Your task to perform on an android device: visit the assistant section in the google photos Image 0: 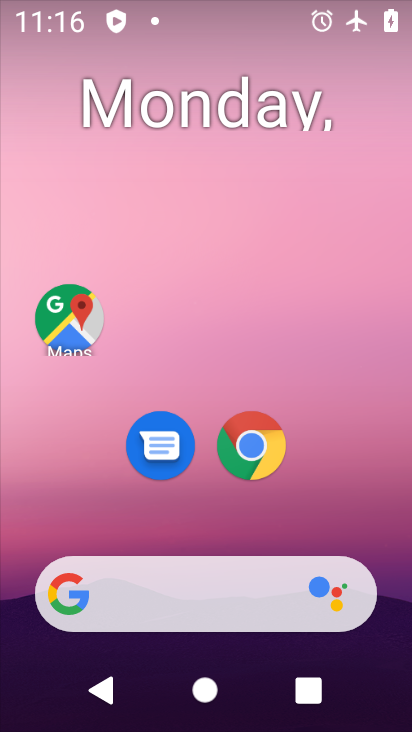
Step 0: drag from (208, 363) to (199, 123)
Your task to perform on an android device: visit the assistant section in the google photos Image 1: 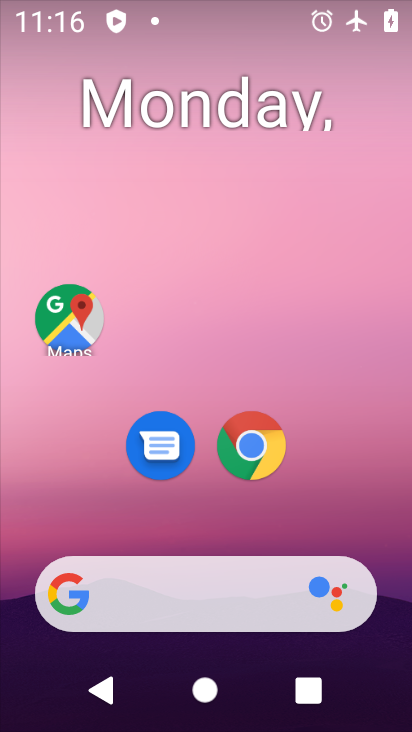
Step 1: drag from (304, 436) to (85, 64)
Your task to perform on an android device: visit the assistant section in the google photos Image 2: 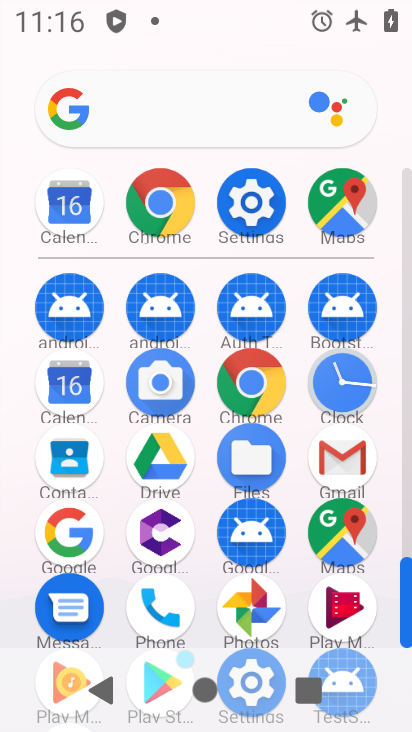
Step 2: click (250, 620)
Your task to perform on an android device: visit the assistant section in the google photos Image 3: 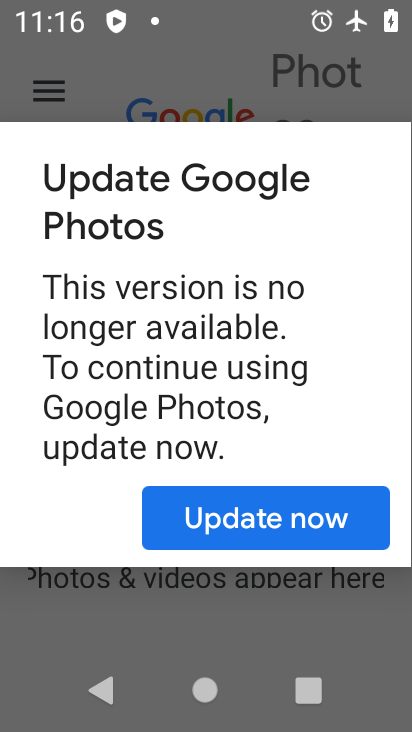
Step 3: click (256, 520)
Your task to perform on an android device: visit the assistant section in the google photos Image 4: 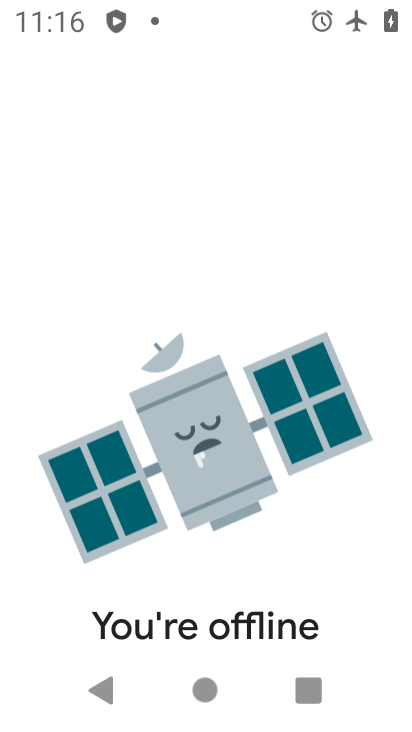
Step 4: drag from (199, 510) to (204, 118)
Your task to perform on an android device: visit the assistant section in the google photos Image 5: 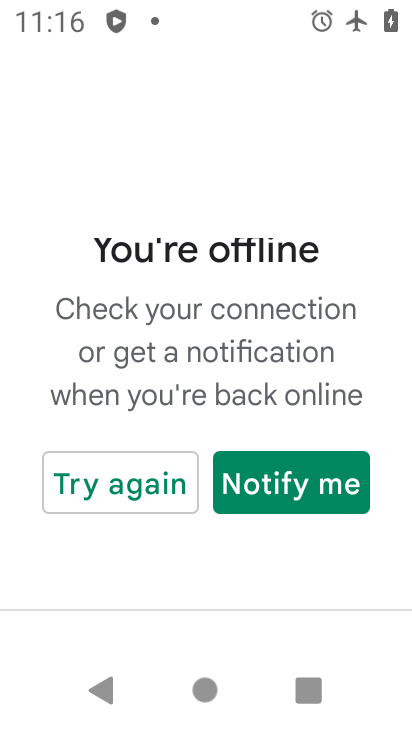
Step 5: click (186, 496)
Your task to perform on an android device: visit the assistant section in the google photos Image 6: 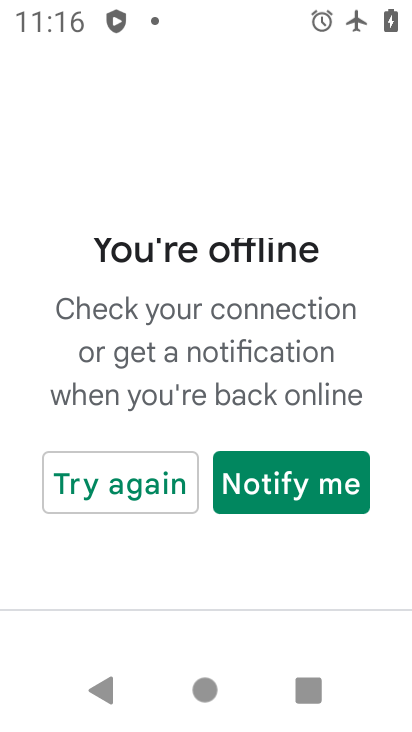
Step 6: task complete